Your task to perform on an android device: toggle improve location accuracy Image 0: 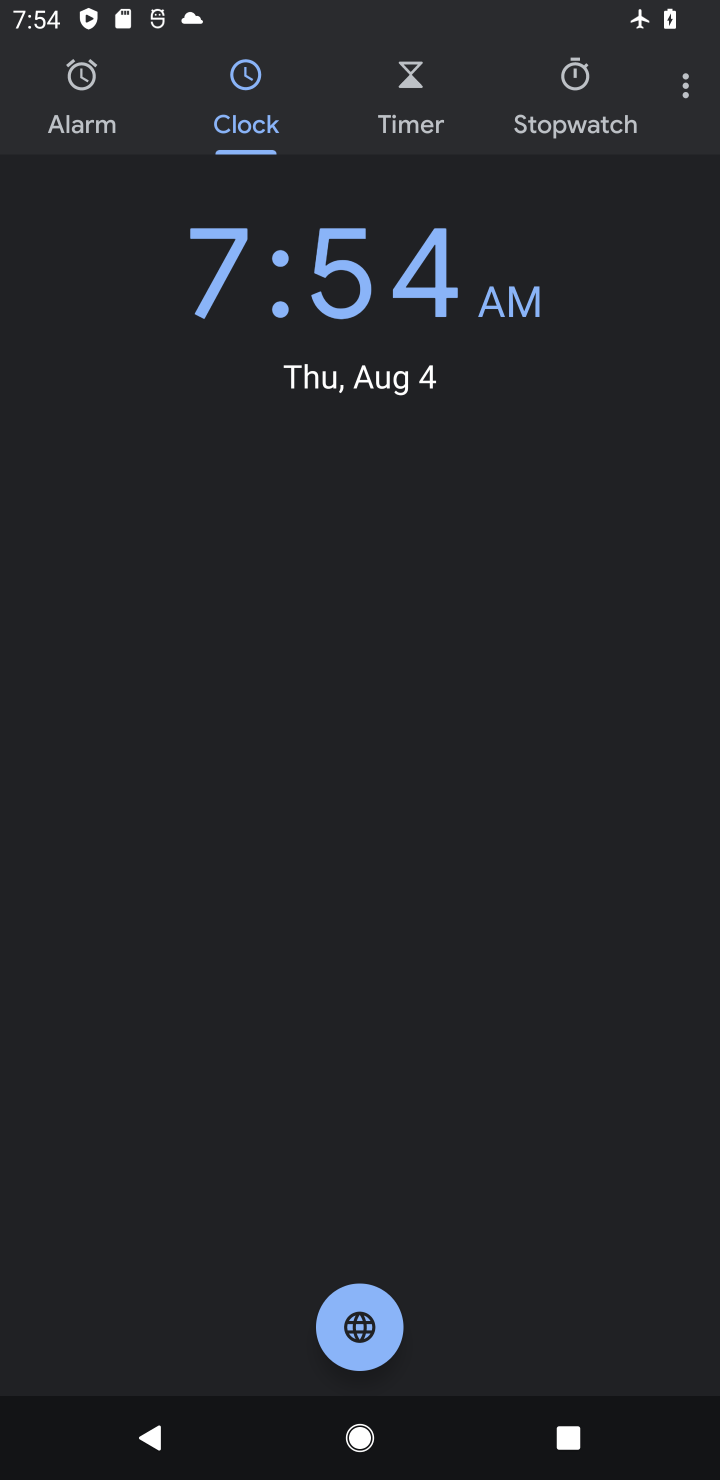
Step 0: press home button
Your task to perform on an android device: toggle improve location accuracy Image 1: 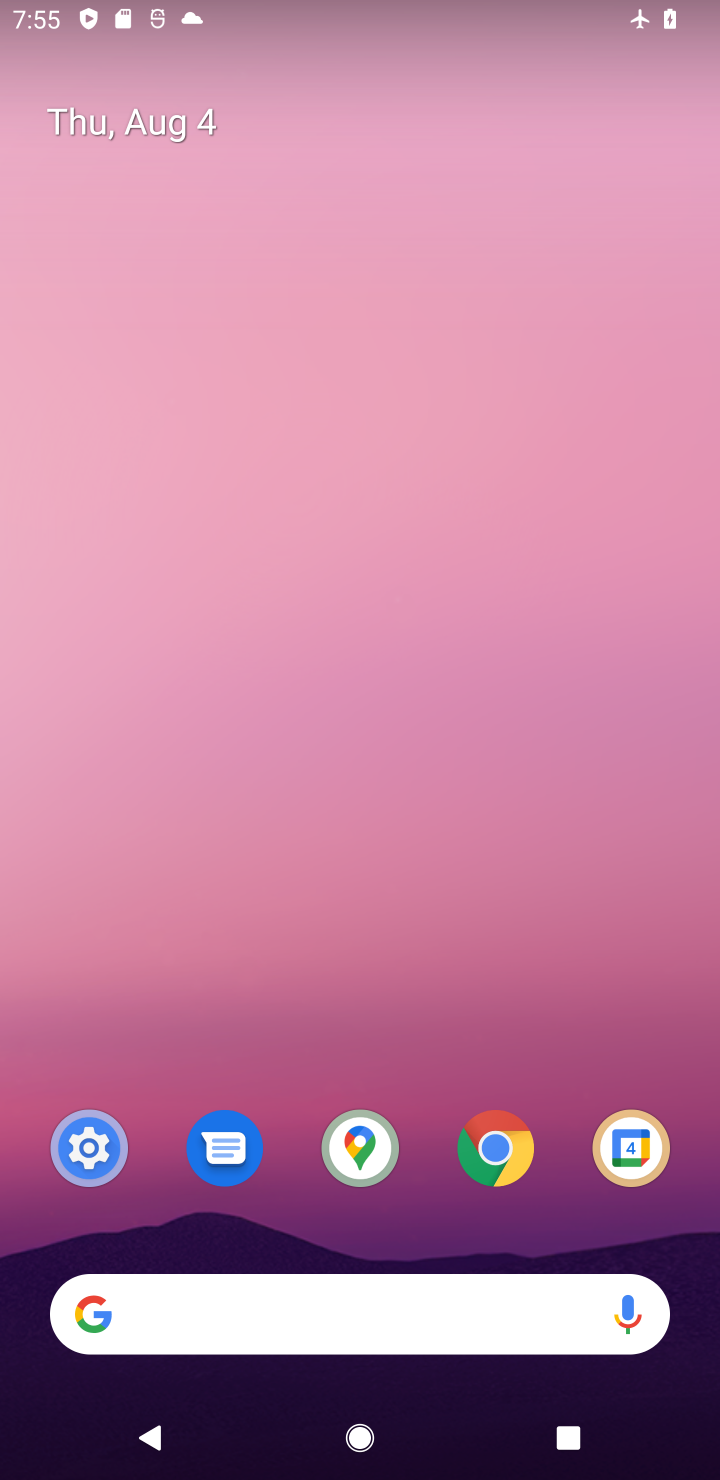
Step 1: click (77, 1147)
Your task to perform on an android device: toggle improve location accuracy Image 2: 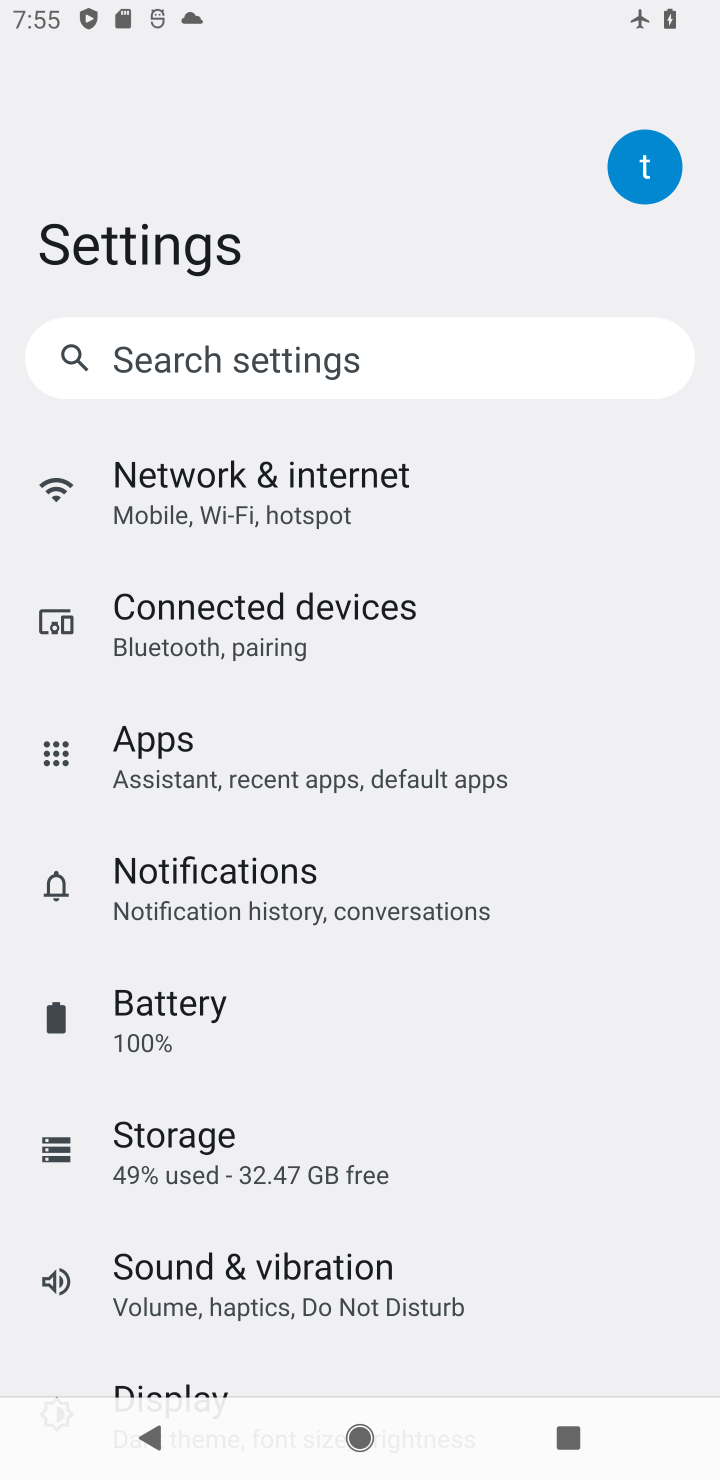
Step 2: drag from (473, 1279) to (323, 228)
Your task to perform on an android device: toggle improve location accuracy Image 3: 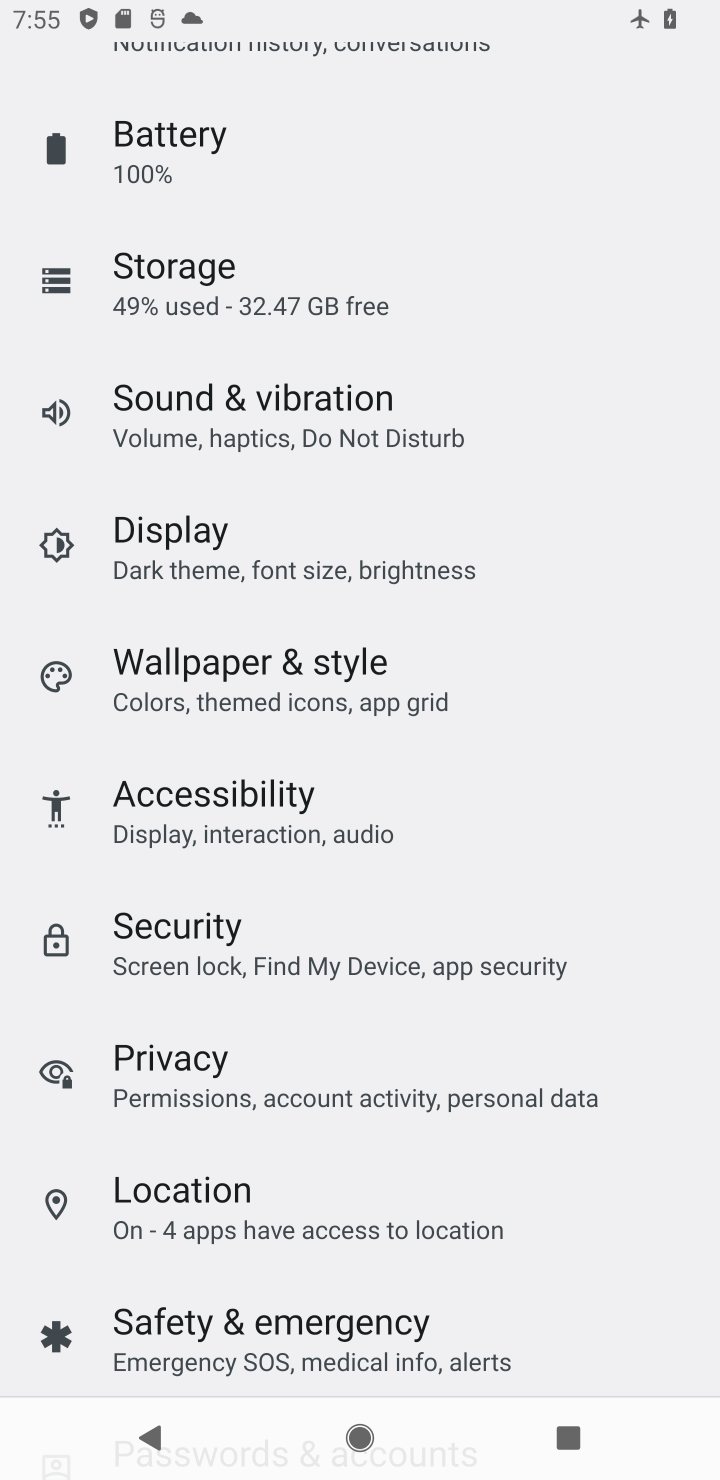
Step 3: click (373, 1211)
Your task to perform on an android device: toggle improve location accuracy Image 4: 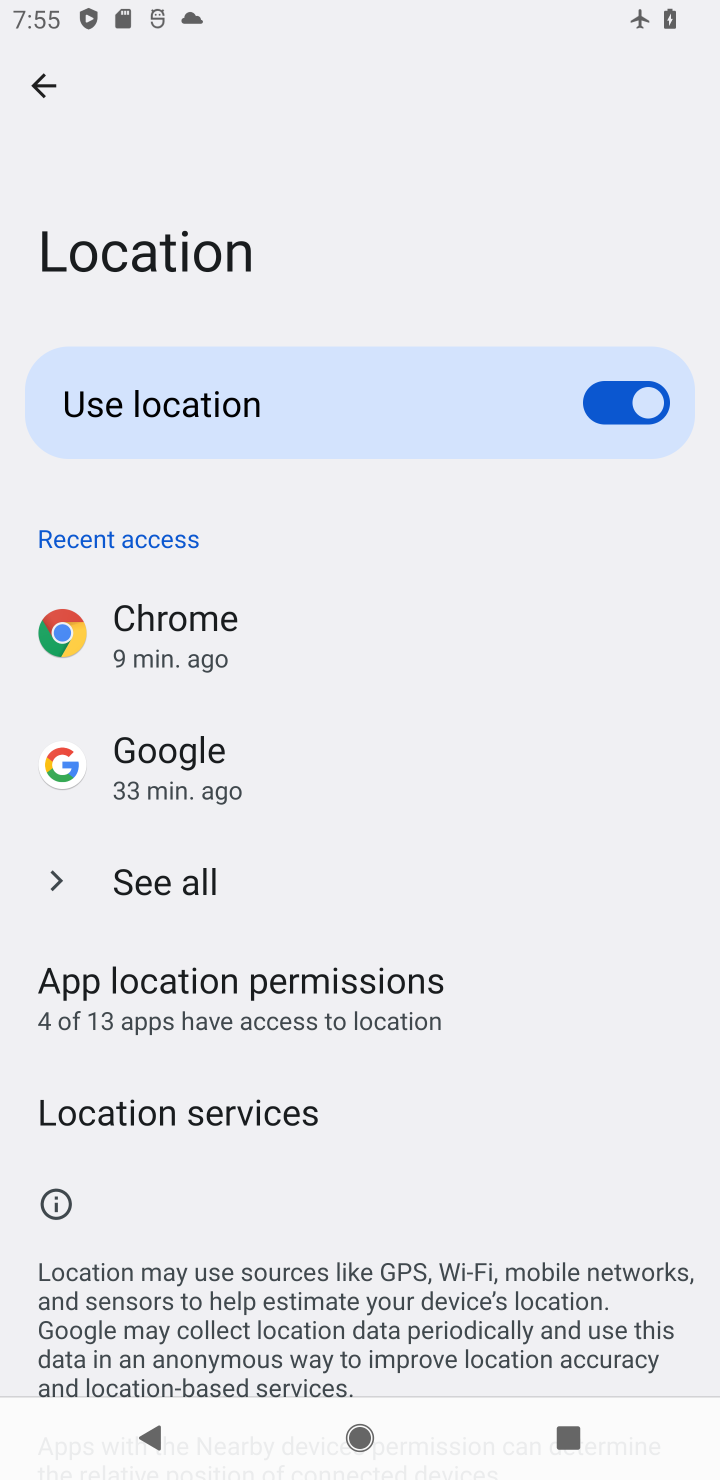
Step 4: click (408, 1140)
Your task to perform on an android device: toggle improve location accuracy Image 5: 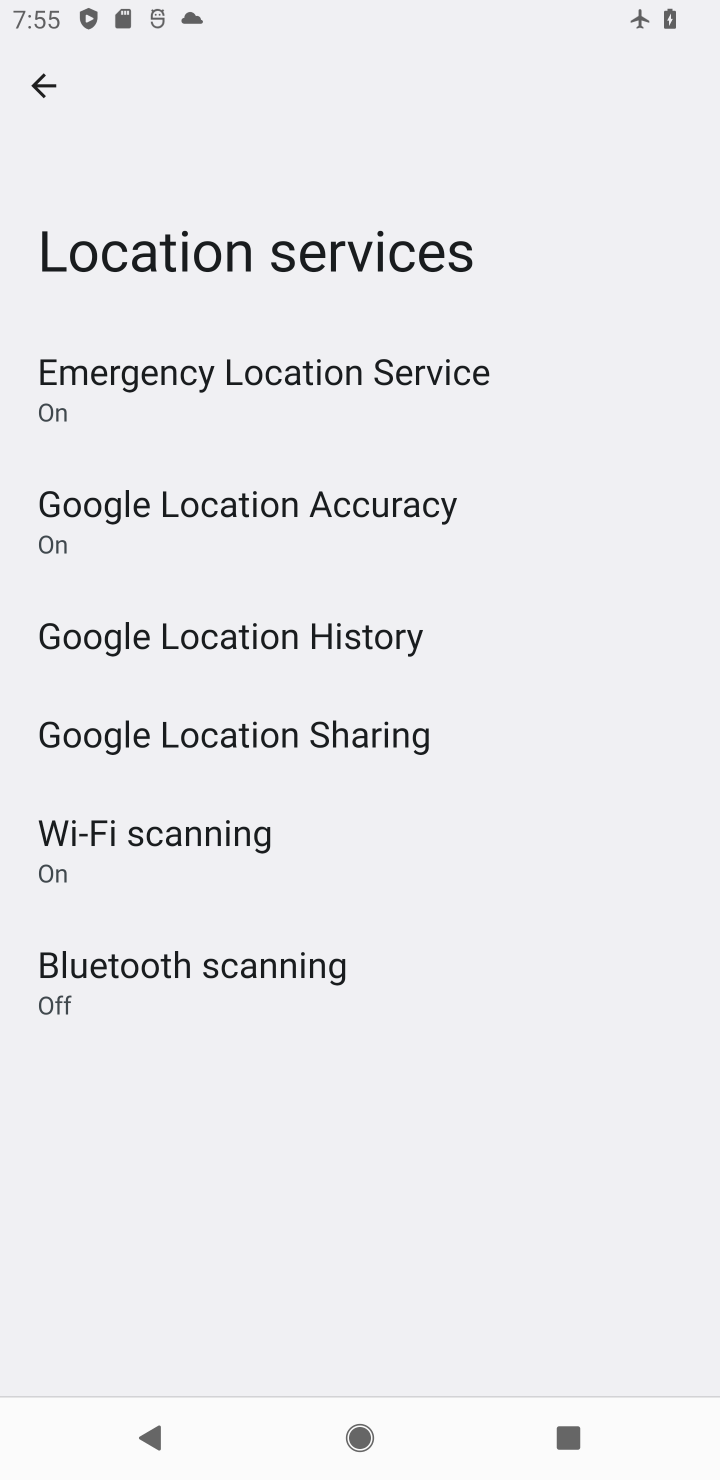
Step 5: click (465, 520)
Your task to perform on an android device: toggle improve location accuracy Image 6: 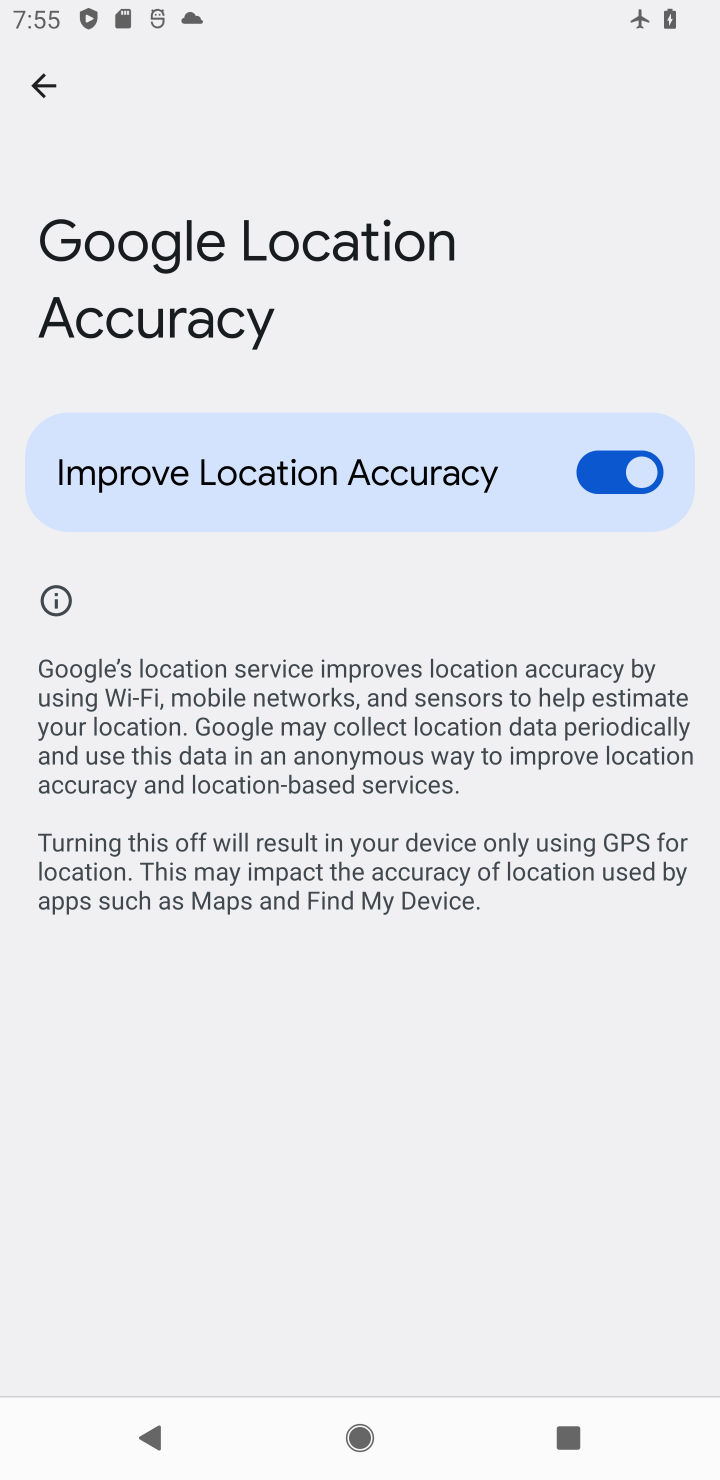
Step 6: task complete